Your task to perform on an android device: turn off translation in the chrome app Image 0: 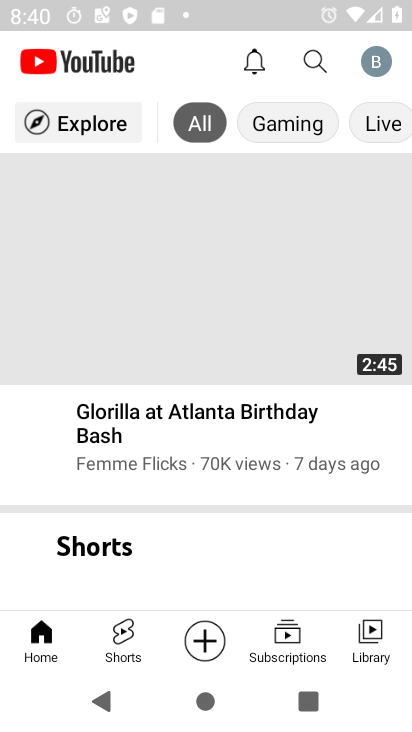
Step 0: press home button
Your task to perform on an android device: turn off translation in the chrome app Image 1: 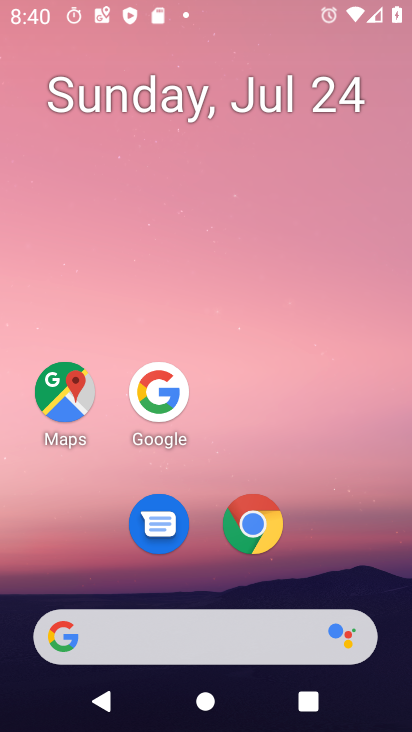
Step 1: press home button
Your task to perform on an android device: turn off translation in the chrome app Image 2: 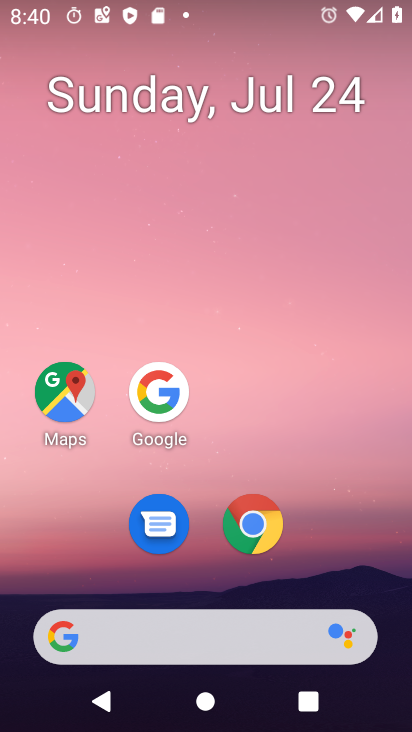
Step 2: click (257, 523)
Your task to perform on an android device: turn off translation in the chrome app Image 3: 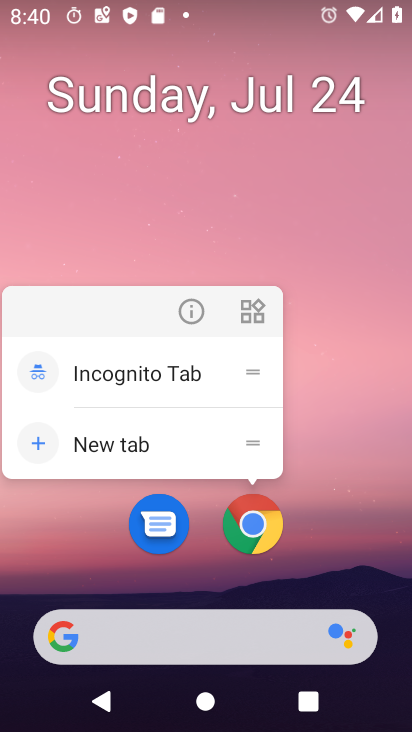
Step 3: click (256, 522)
Your task to perform on an android device: turn off translation in the chrome app Image 4: 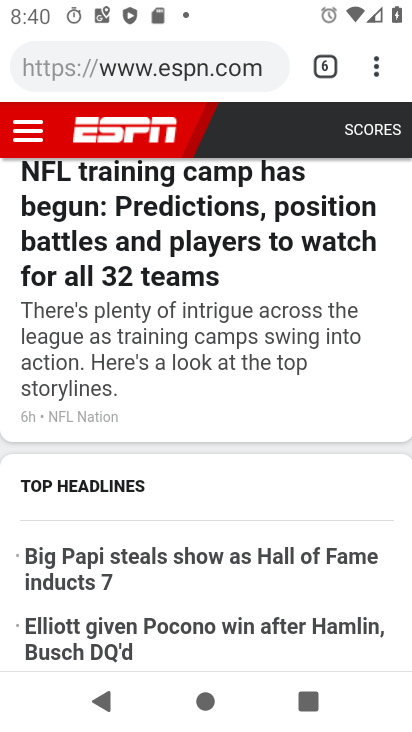
Step 4: drag from (378, 67) to (260, 519)
Your task to perform on an android device: turn off translation in the chrome app Image 5: 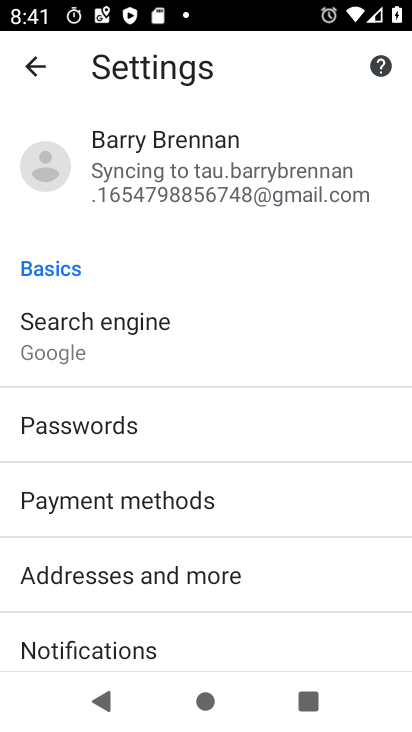
Step 5: drag from (202, 630) to (311, 204)
Your task to perform on an android device: turn off translation in the chrome app Image 6: 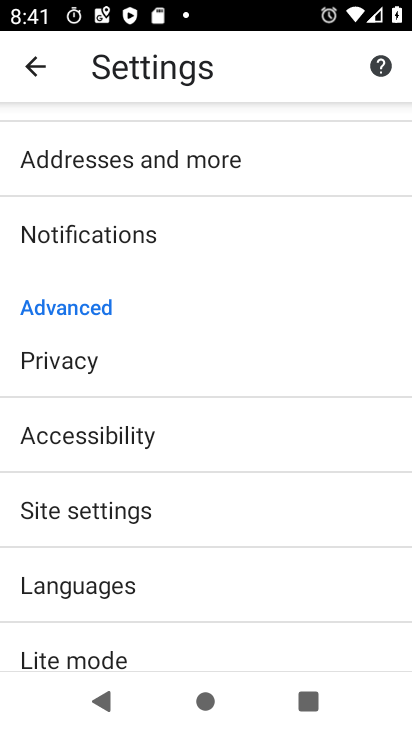
Step 6: click (107, 596)
Your task to perform on an android device: turn off translation in the chrome app Image 7: 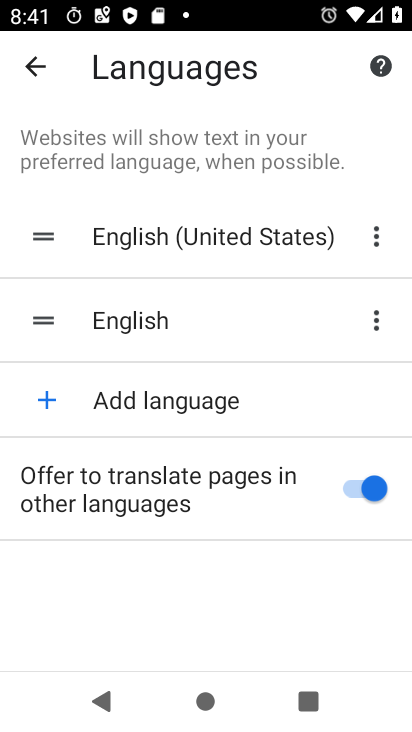
Step 7: click (353, 486)
Your task to perform on an android device: turn off translation in the chrome app Image 8: 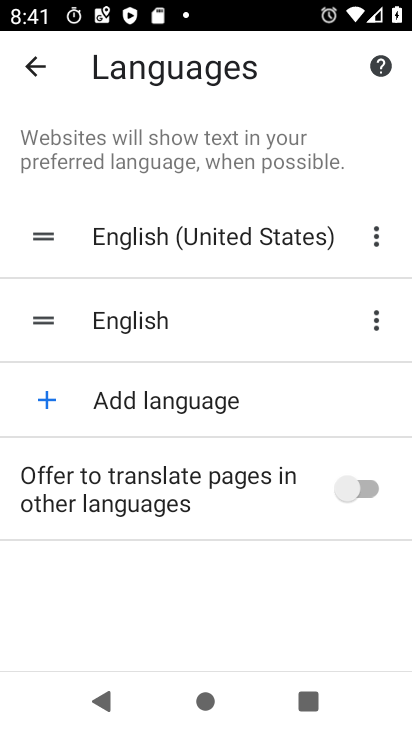
Step 8: task complete